Your task to perform on an android device: turn off javascript in the chrome app Image 0: 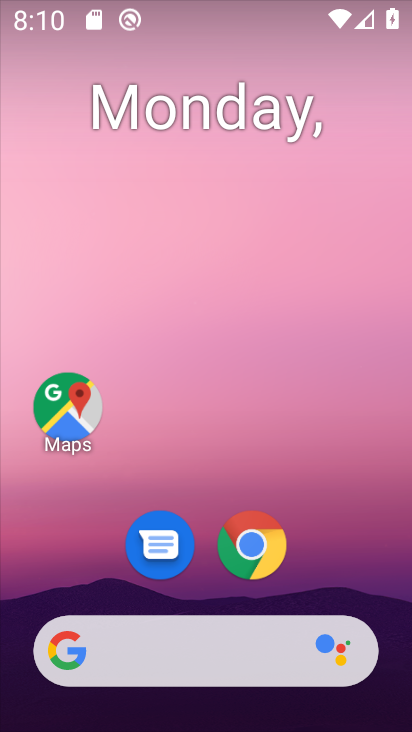
Step 0: drag from (287, 691) to (183, 169)
Your task to perform on an android device: turn off javascript in the chrome app Image 1: 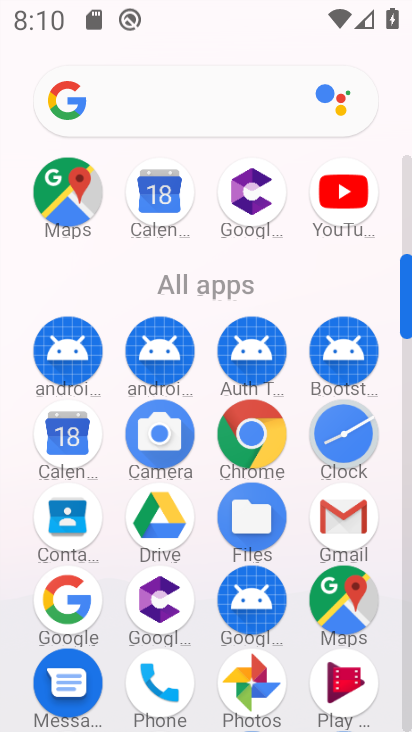
Step 1: click (228, 447)
Your task to perform on an android device: turn off javascript in the chrome app Image 2: 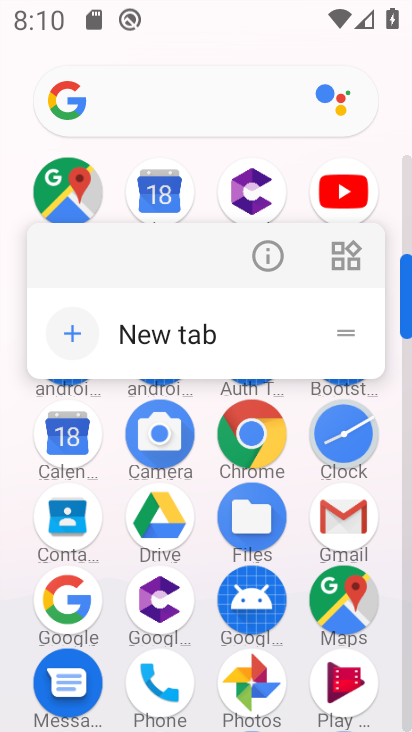
Step 2: click (246, 437)
Your task to perform on an android device: turn off javascript in the chrome app Image 3: 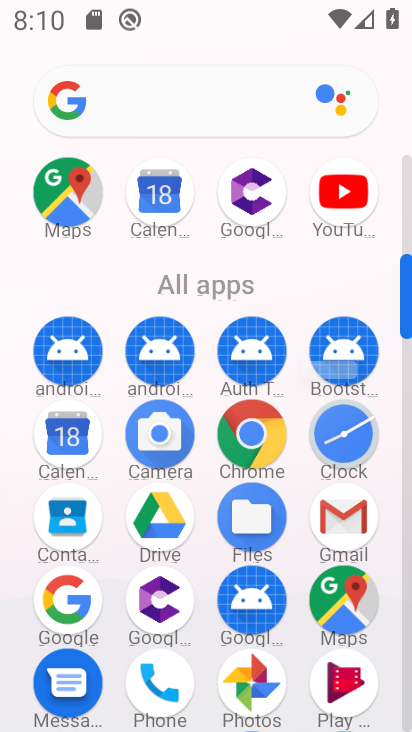
Step 3: click (246, 437)
Your task to perform on an android device: turn off javascript in the chrome app Image 4: 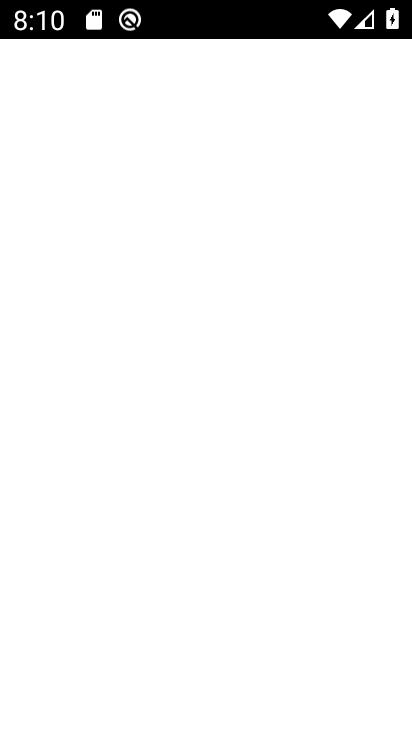
Step 4: click (248, 436)
Your task to perform on an android device: turn off javascript in the chrome app Image 5: 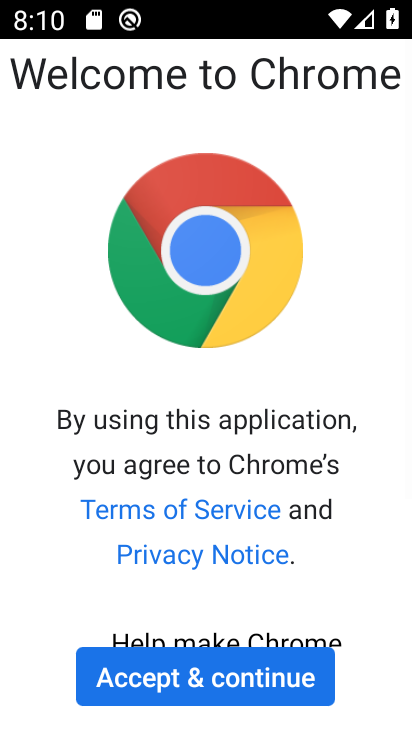
Step 5: click (196, 678)
Your task to perform on an android device: turn off javascript in the chrome app Image 6: 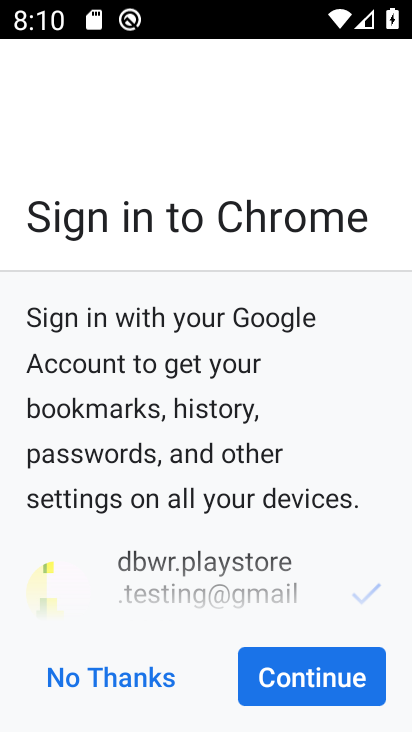
Step 6: click (323, 672)
Your task to perform on an android device: turn off javascript in the chrome app Image 7: 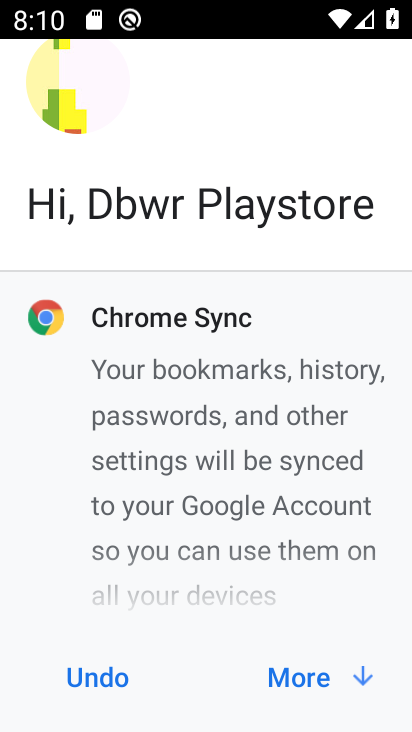
Step 7: click (287, 672)
Your task to perform on an android device: turn off javascript in the chrome app Image 8: 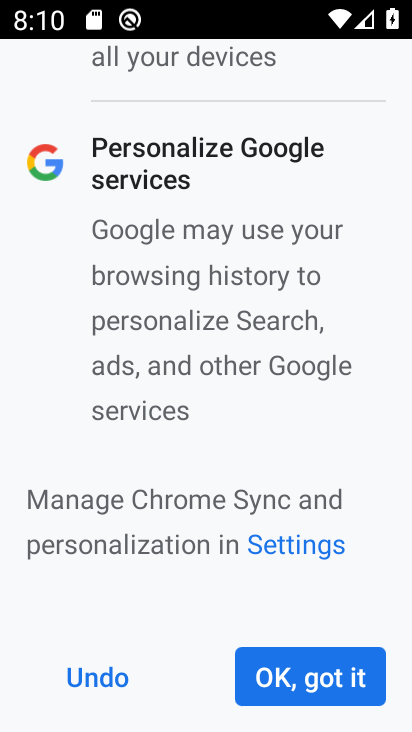
Step 8: click (287, 672)
Your task to perform on an android device: turn off javascript in the chrome app Image 9: 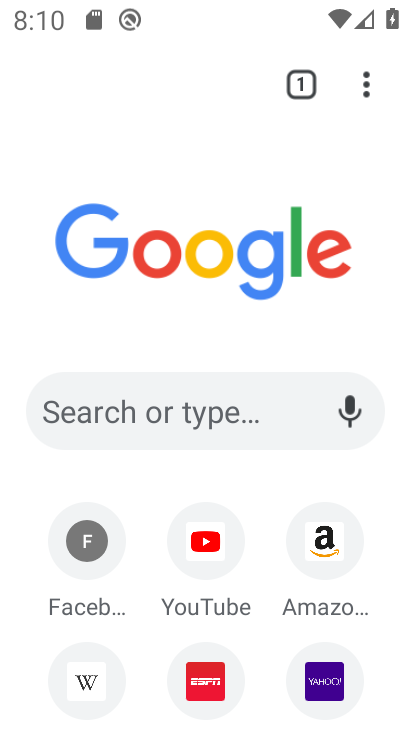
Step 9: click (360, 76)
Your task to perform on an android device: turn off javascript in the chrome app Image 10: 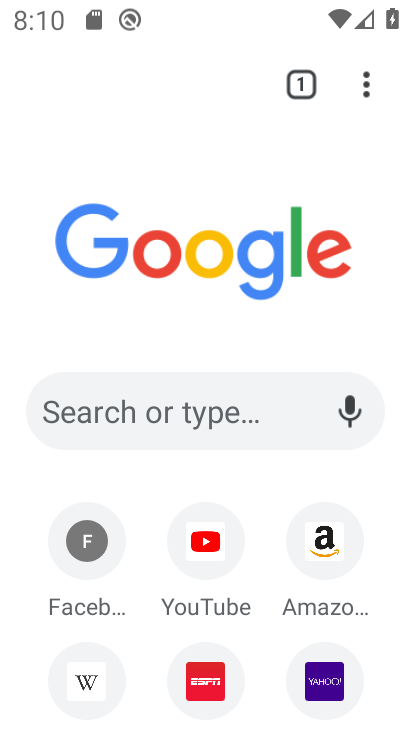
Step 10: click (360, 76)
Your task to perform on an android device: turn off javascript in the chrome app Image 11: 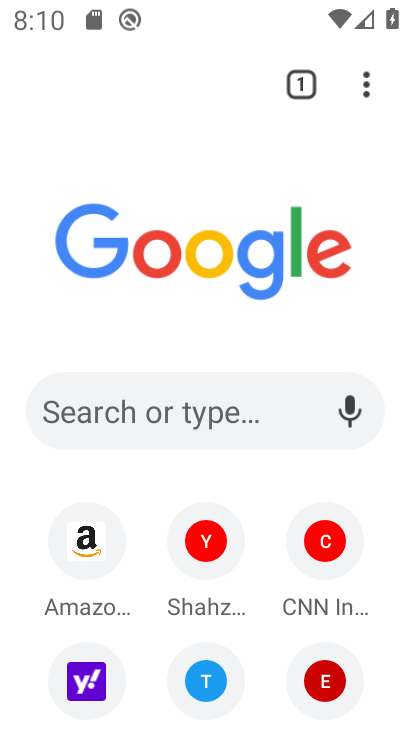
Step 11: click (365, 80)
Your task to perform on an android device: turn off javascript in the chrome app Image 12: 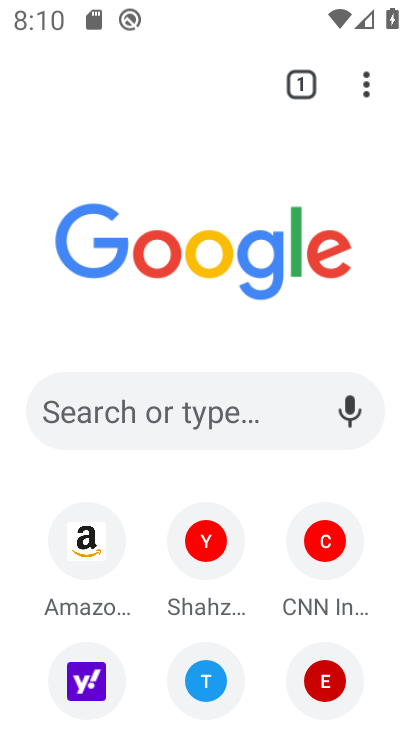
Step 12: click (364, 81)
Your task to perform on an android device: turn off javascript in the chrome app Image 13: 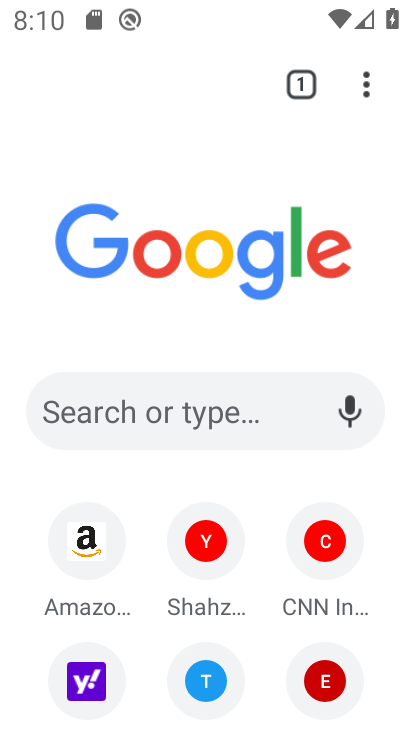
Step 13: click (364, 81)
Your task to perform on an android device: turn off javascript in the chrome app Image 14: 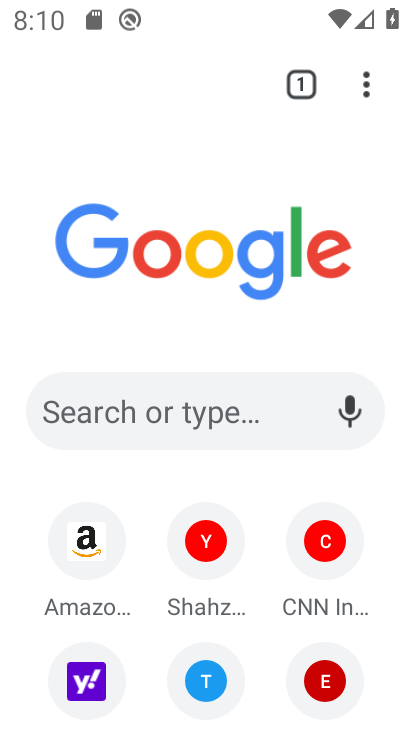
Step 14: click (364, 81)
Your task to perform on an android device: turn off javascript in the chrome app Image 15: 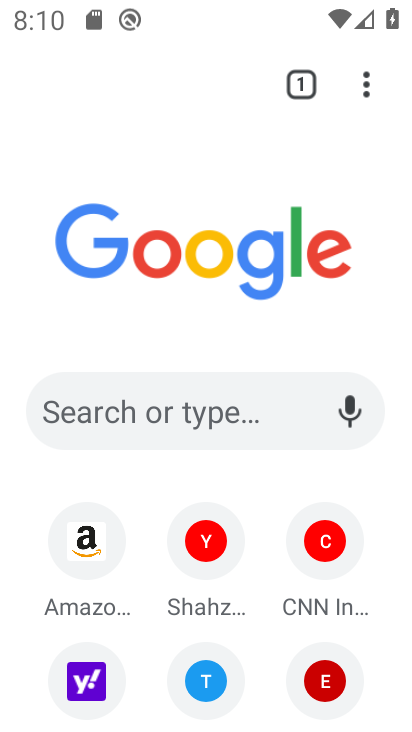
Step 15: click (364, 81)
Your task to perform on an android device: turn off javascript in the chrome app Image 16: 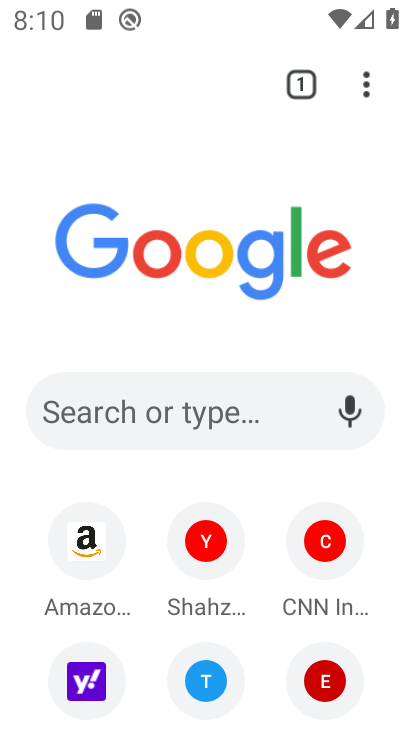
Step 16: click (364, 81)
Your task to perform on an android device: turn off javascript in the chrome app Image 17: 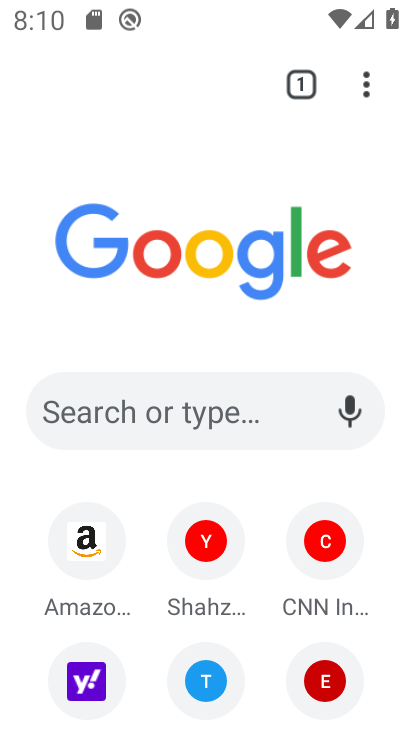
Step 17: click (364, 81)
Your task to perform on an android device: turn off javascript in the chrome app Image 18: 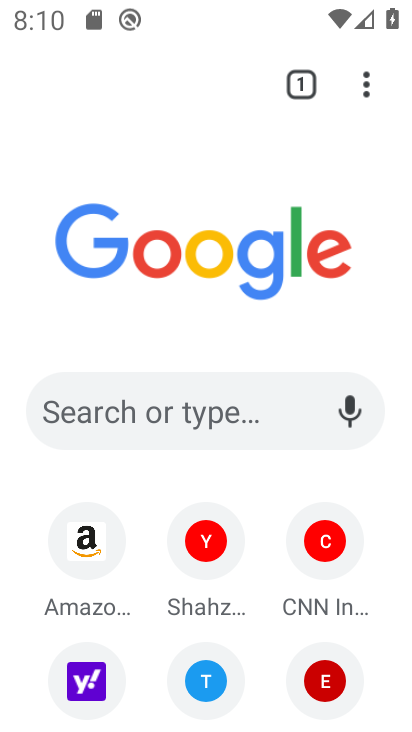
Step 18: click (364, 81)
Your task to perform on an android device: turn off javascript in the chrome app Image 19: 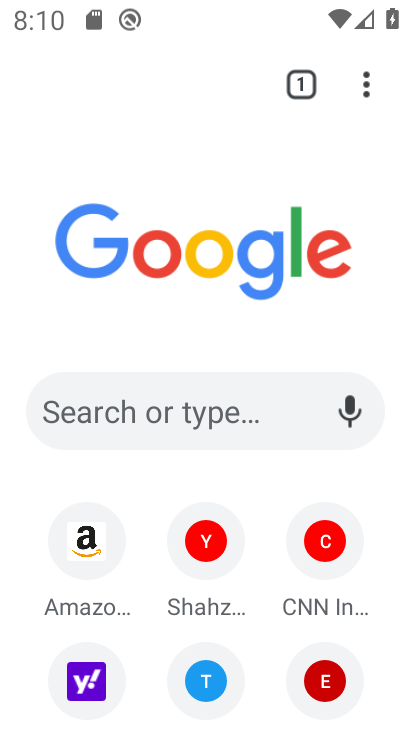
Step 19: click (364, 81)
Your task to perform on an android device: turn off javascript in the chrome app Image 20: 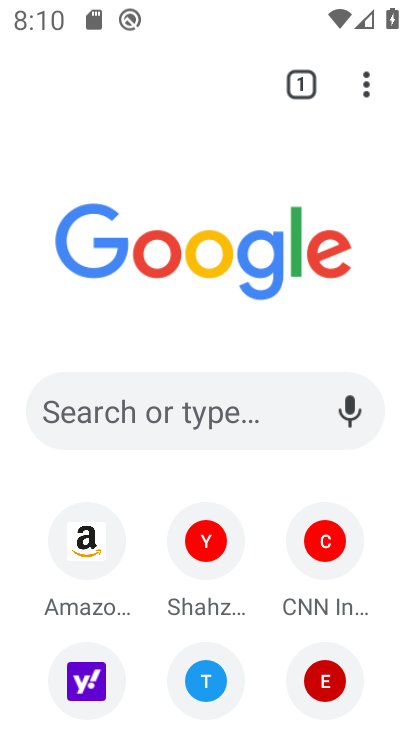
Step 20: click (364, 81)
Your task to perform on an android device: turn off javascript in the chrome app Image 21: 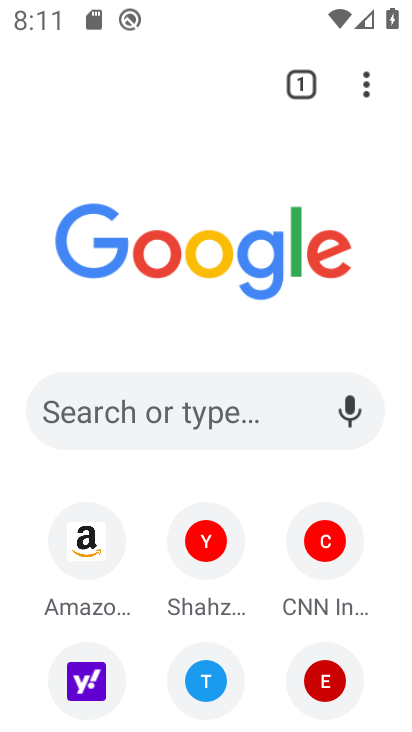
Step 21: click (364, 81)
Your task to perform on an android device: turn off javascript in the chrome app Image 22: 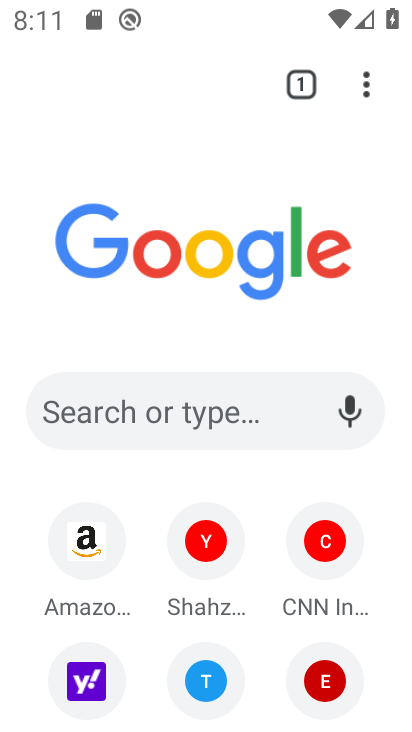
Step 22: drag from (364, 81) to (163, 650)
Your task to perform on an android device: turn off javascript in the chrome app Image 23: 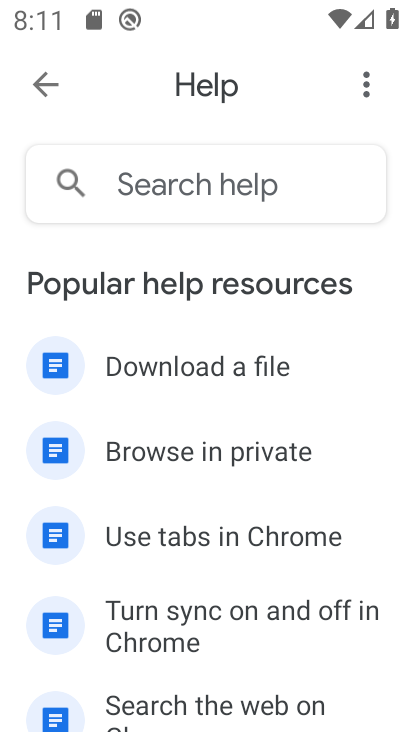
Step 23: click (34, 76)
Your task to perform on an android device: turn off javascript in the chrome app Image 24: 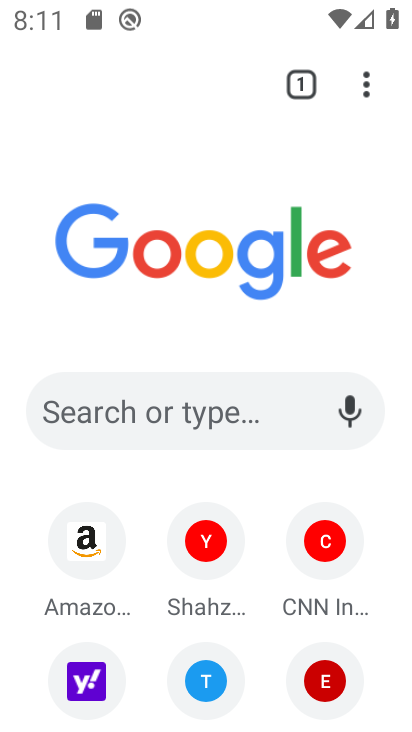
Step 24: drag from (372, 295) to (365, 81)
Your task to perform on an android device: turn off javascript in the chrome app Image 25: 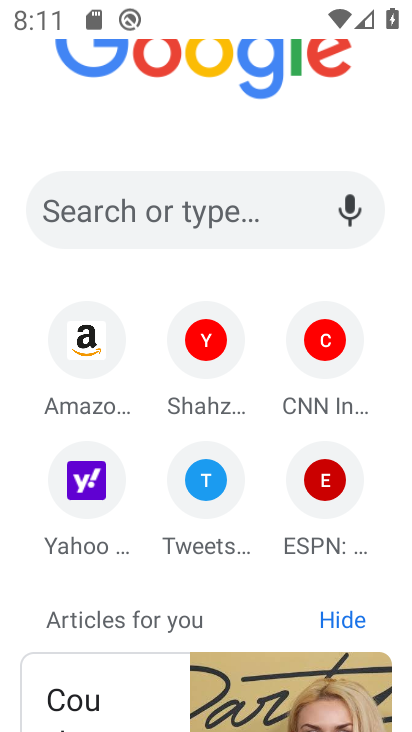
Step 25: drag from (170, 240) to (406, 229)
Your task to perform on an android device: turn off javascript in the chrome app Image 26: 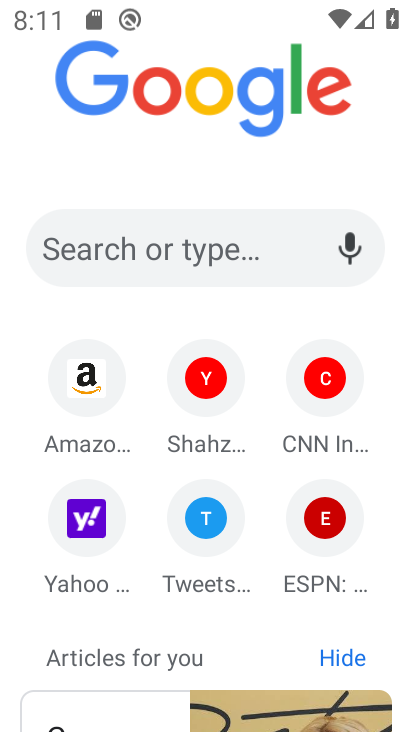
Step 26: click (158, 585)
Your task to perform on an android device: turn off javascript in the chrome app Image 27: 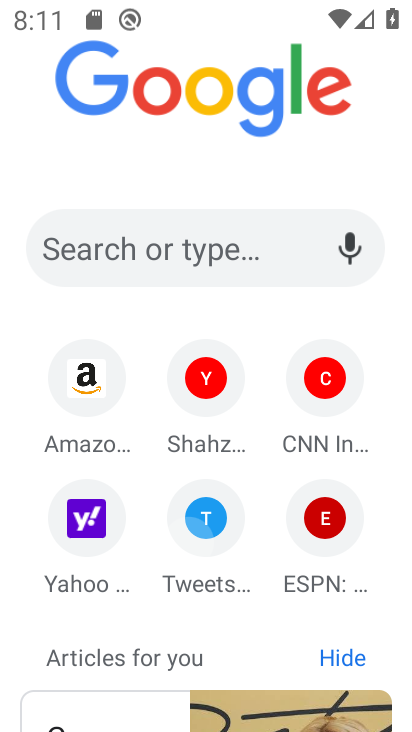
Step 27: drag from (230, 265) to (240, 613)
Your task to perform on an android device: turn off javascript in the chrome app Image 28: 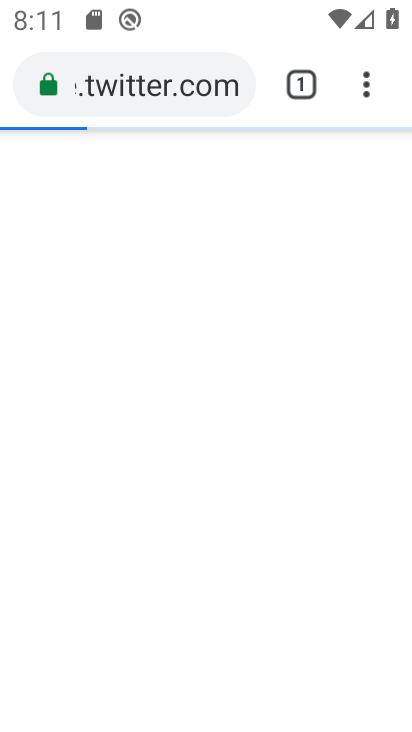
Step 28: drag from (278, 255) to (283, 517)
Your task to perform on an android device: turn off javascript in the chrome app Image 29: 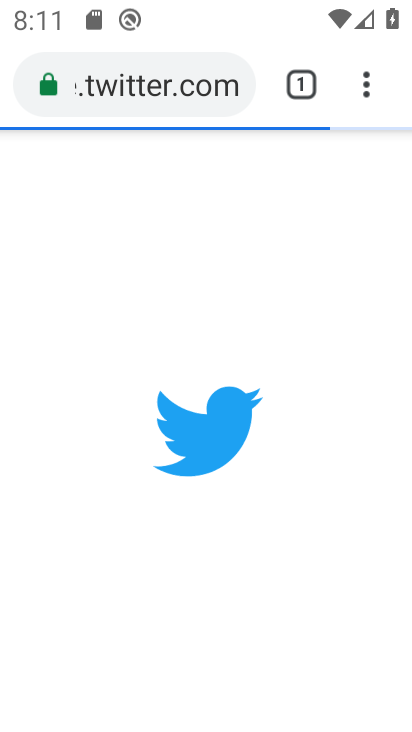
Step 29: click (362, 86)
Your task to perform on an android device: turn off javascript in the chrome app Image 30: 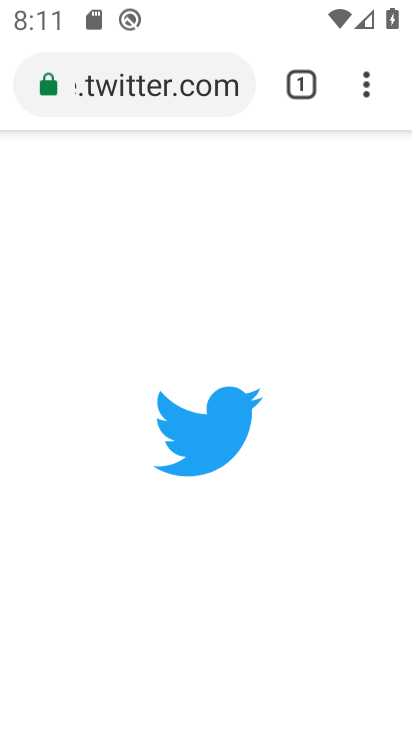
Step 30: click (365, 80)
Your task to perform on an android device: turn off javascript in the chrome app Image 31: 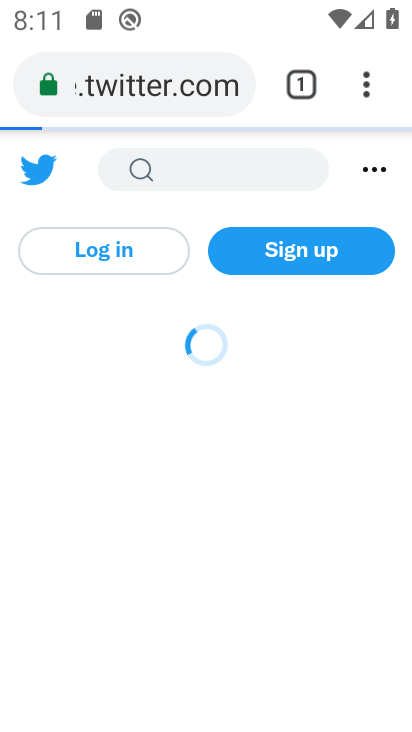
Step 31: click (365, 80)
Your task to perform on an android device: turn off javascript in the chrome app Image 32: 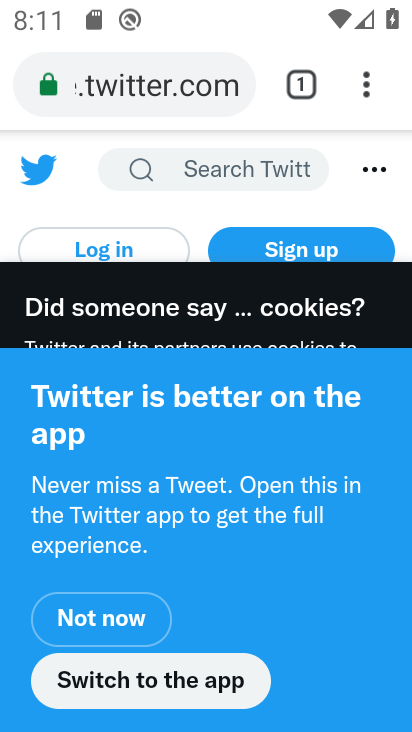
Step 32: press back button
Your task to perform on an android device: turn off javascript in the chrome app Image 33: 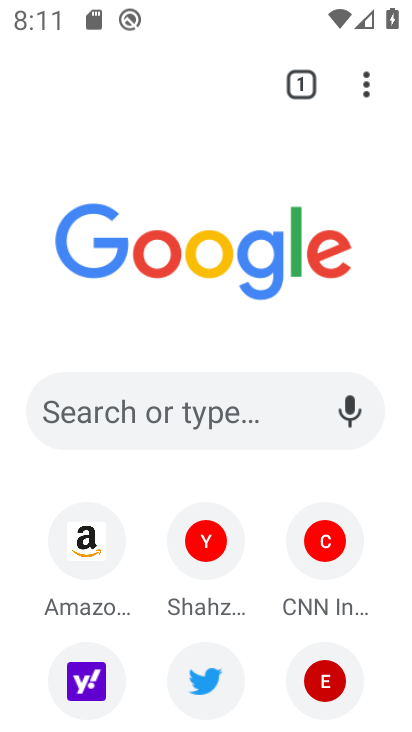
Step 33: click (357, 80)
Your task to perform on an android device: turn off javascript in the chrome app Image 34: 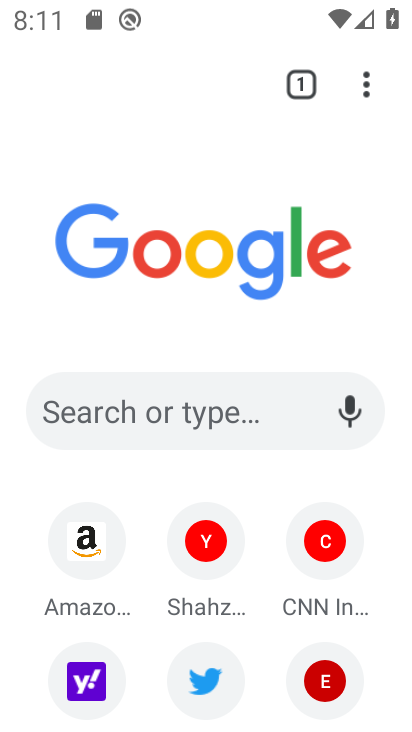
Step 34: click (357, 80)
Your task to perform on an android device: turn off javascript in the chrome app Image 35: 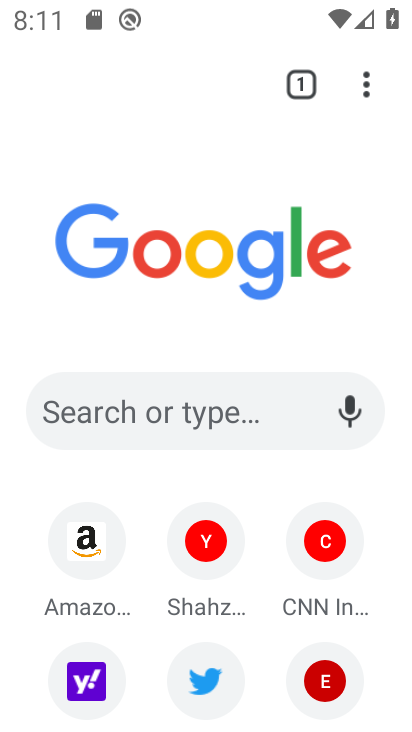
Step 35: click (363, 81)
Your task to perform on an android device: turn off javascript in the chrome app Image 36: 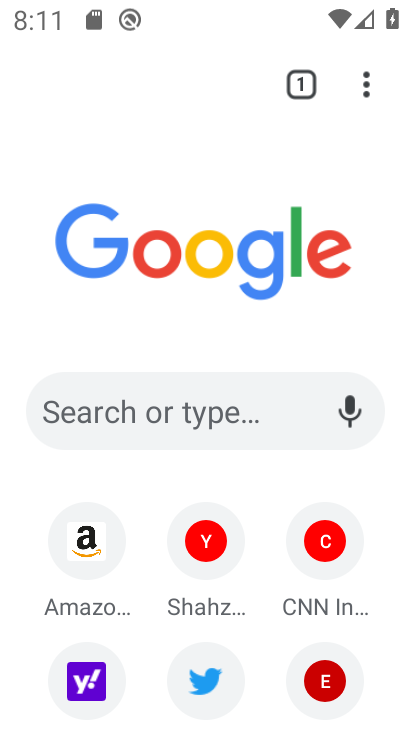
Step 36: drag from (358, 92) to (383, 59)
Your task to perform on an android device: turn off javascript in the chrome app Image 37: 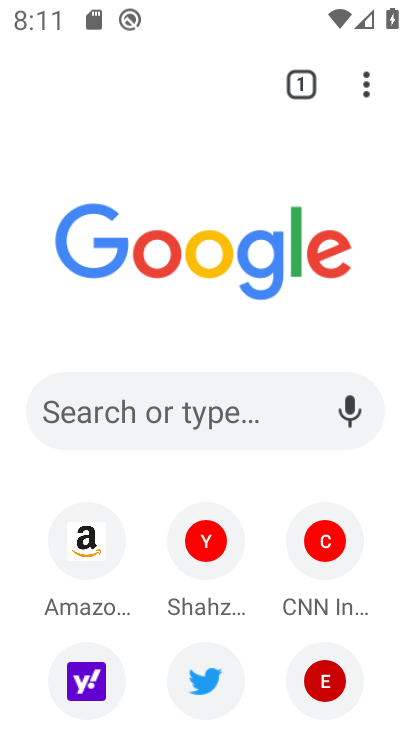
Step 37: click (366, 88)
Your task to perform on an android device: turn off javascript in the chrome app Image 38: 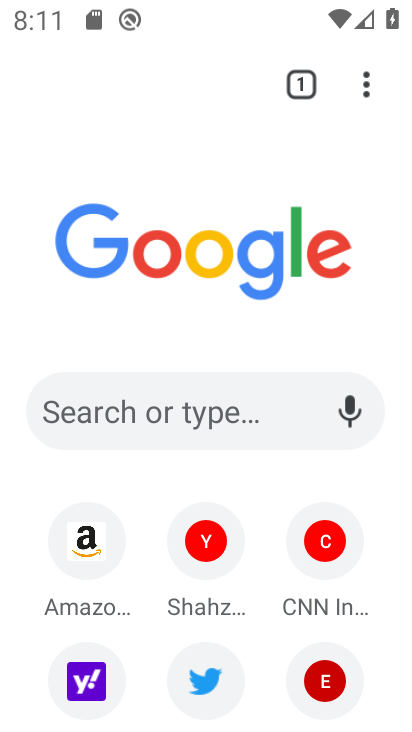
Step 38: click (365, 75)
Your task to perform on an android device: turn off javascript in the chrome app Image 39: 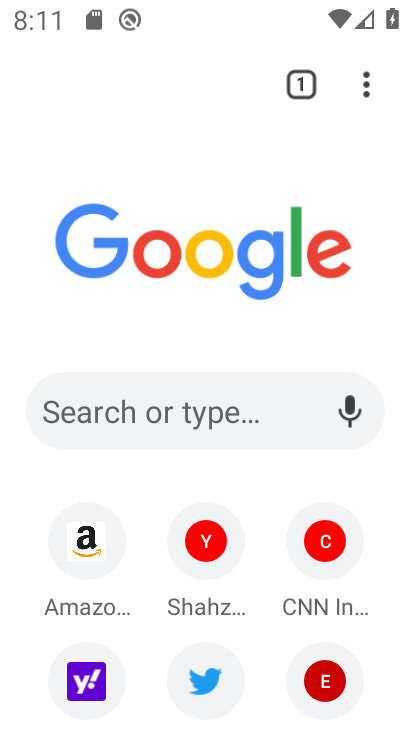
Step 39: click (367, 81)
Your task to perform on an android device: turn off javascript in the chrome app Image 40: 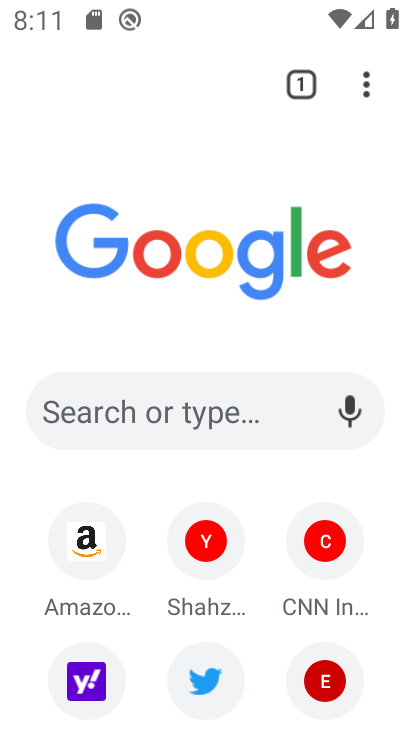
Step 40: click (368, 89)
Your task to perform on an android device: turn off javascript in the chrome app Image 41: 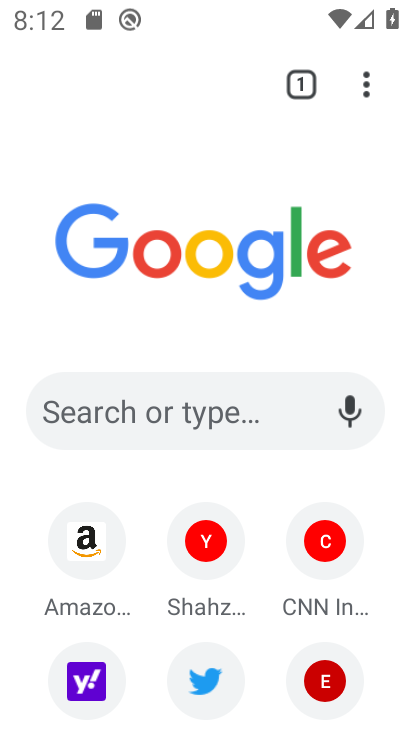
Step 41: click (366, 78)
Your task to perform on an android device: turn off javascript in the chrome app Image 42: 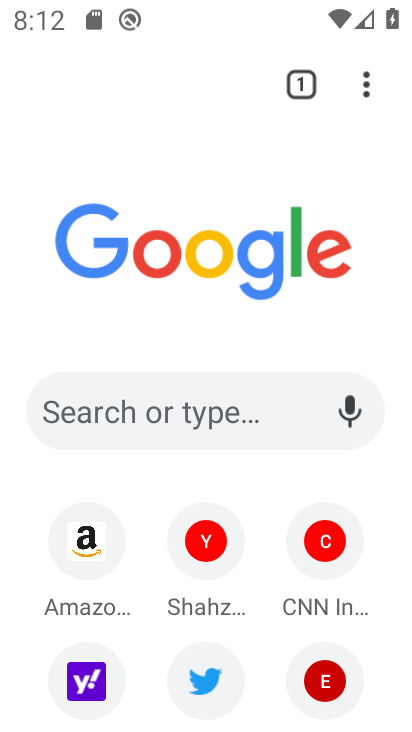
Step 42: click (364, 76)
Your task to perform on an android device: turn off javascript in the chrome app Image 43: 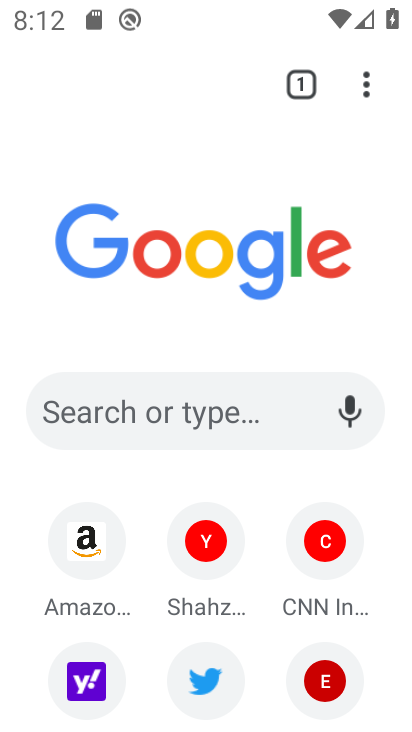
Step 43: click (364, 90)
Your task to perform on an android device: turn off javascript in the chrome app Image 44: 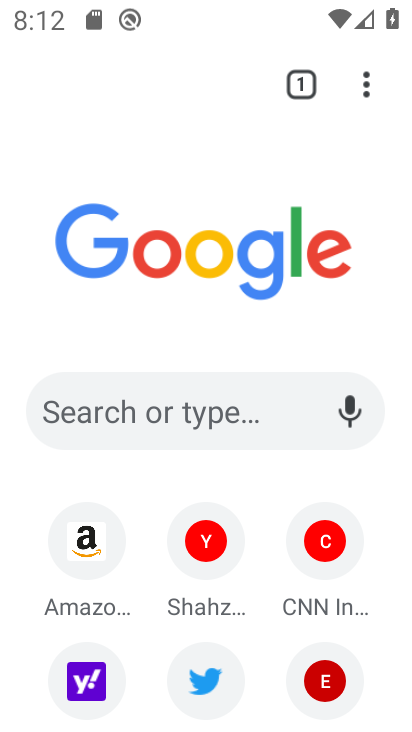
Step 44: click (362, 73)
Your task to perform on an android device: turn off javascript in the chrome app Image 45: 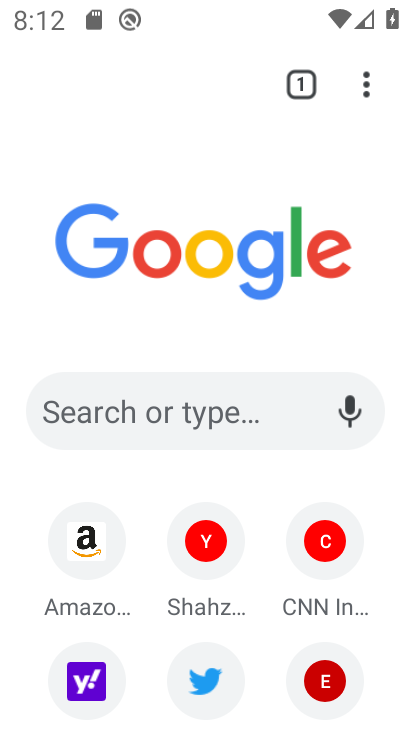
Step 45: click (365, 85)
Your task to perform on an android device: turn off javascript in the chrome app Image 46: 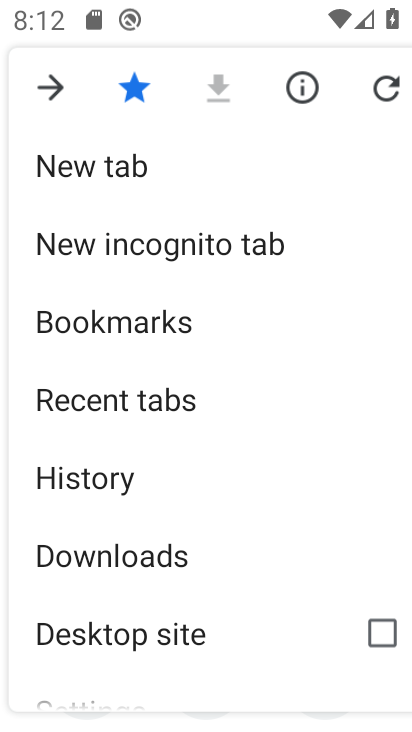
Step 46: drag from (210, 559) to (203, 218)
Your task to perform on an android device: turn off javascript in the chrome app Image 47: 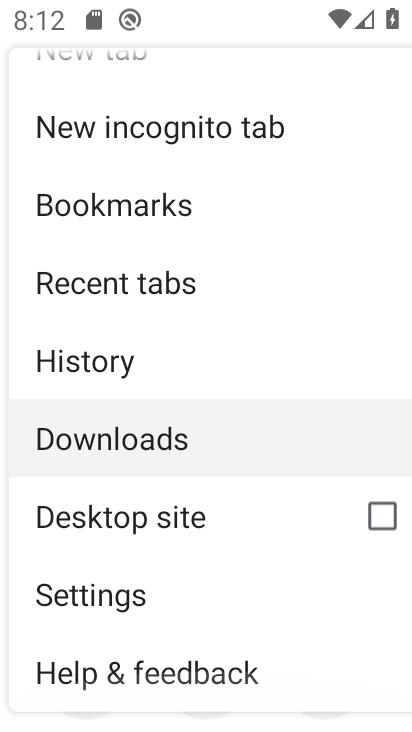
Step 47: drag from (254, 578) to (276, 213)
Your task to perform on an android device: turn off javascript in the chrome app Image 48: 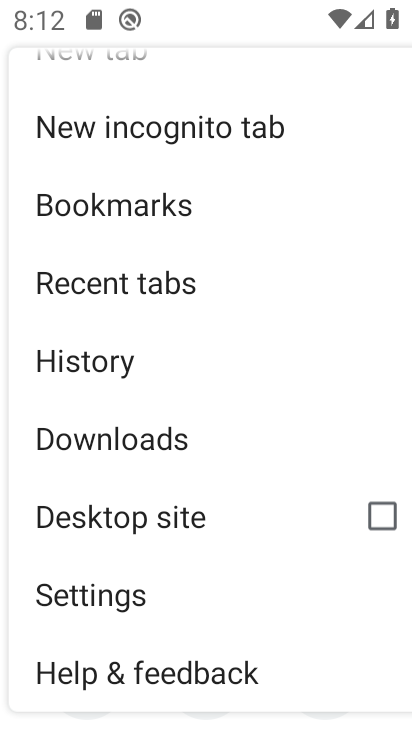
Step 48: click (104, 589)
Your task to perform on an android device: turn off javascript in the chrome app Image 49: 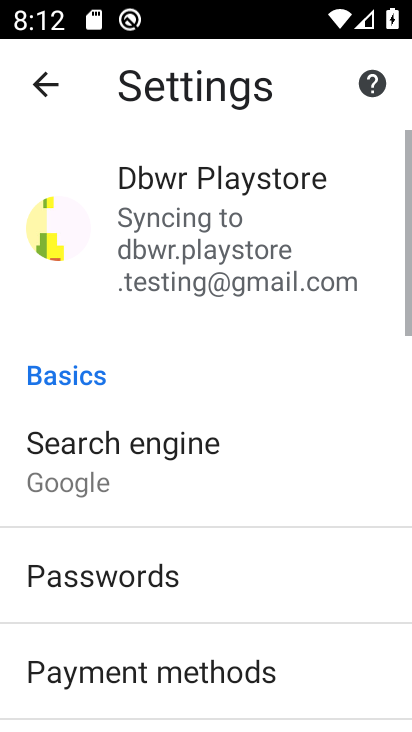
Step 49: drag from (243, 630) to (223, 220)
Your task to perform on an android device: turn off javascript in the chrome app Image 50: 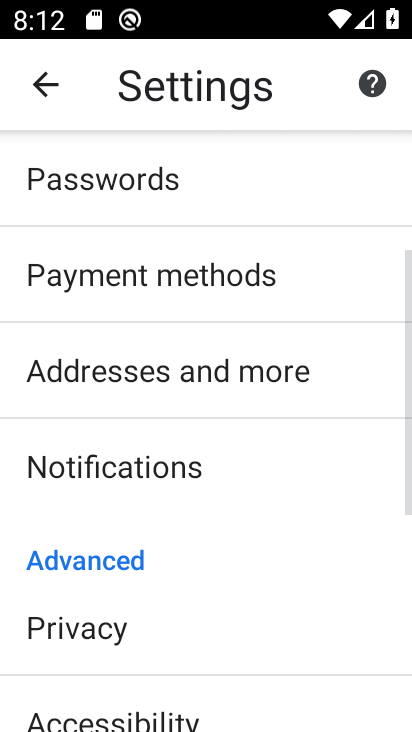
Step 50: drag from (185, 490) to (188, 10)
Your task to perform on an android device: turn off javascript in the chrome app Image 51: 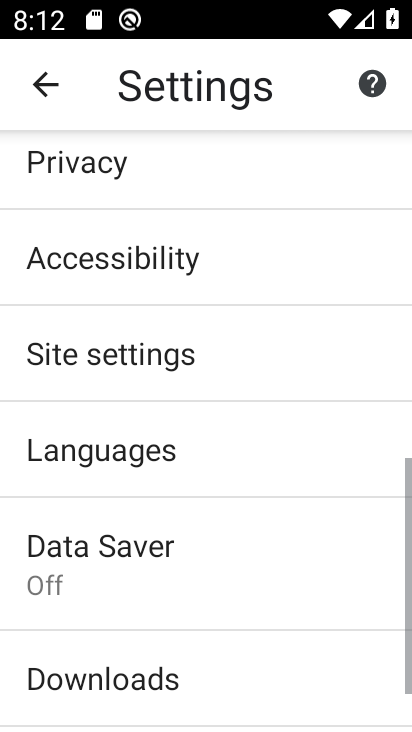
Step 51: drag from (135, 538) to (133, 183)
Your task to perform on an android device: turn off javascript in the chrome app Image 52: 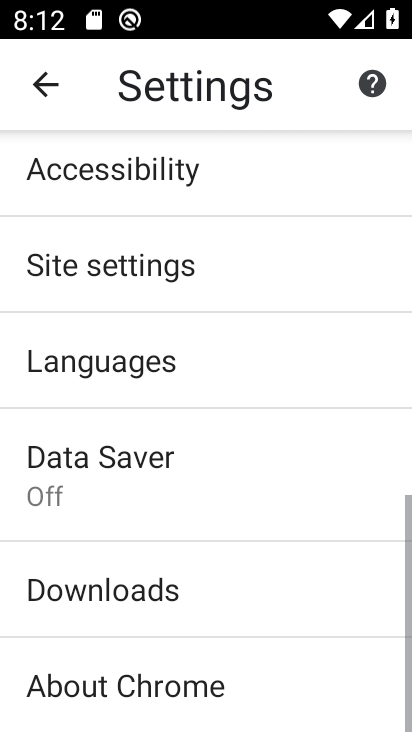
Step 52: click (97, 264)
Your task to perform on an android device: turn off javascript in the chrome app Image 53: 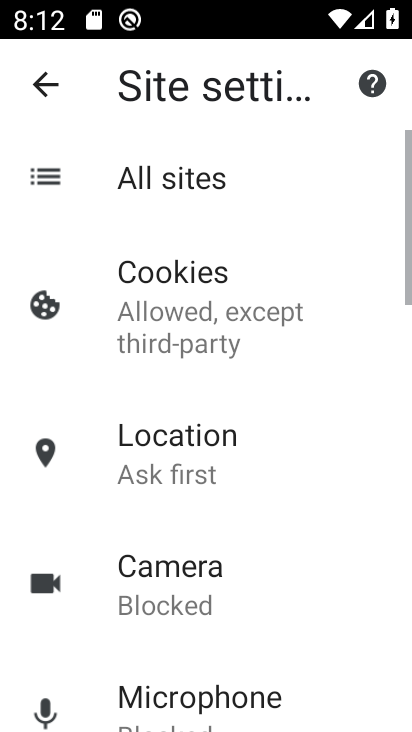
Step 53: drag from (214, 549) to (215, 177)
Your task to perform on an android device: turn off javascript in the chrome app Image 54: 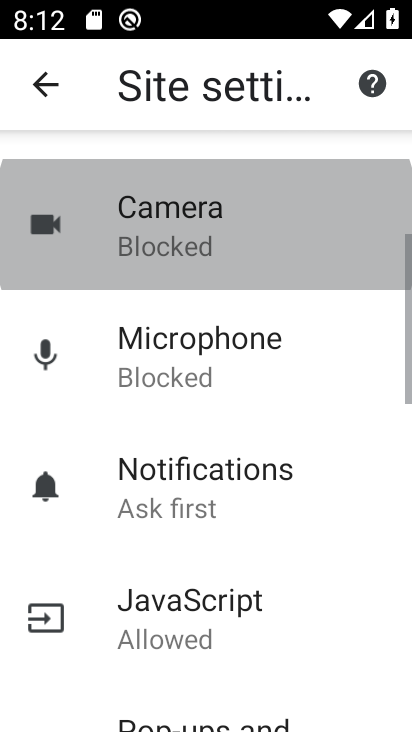
Step 54: drag from (201, 515) to (177, 211)
Your task to perform on an android device: turn off javascript in the chrome app Image 55: 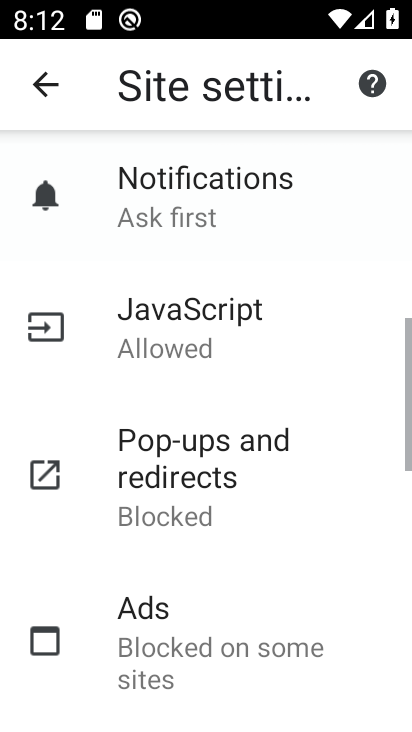
Step 55: drag from (242, 503) to (275, 96)
Your task to perform on an android device: turn off javascript in the chrome app Image 56: 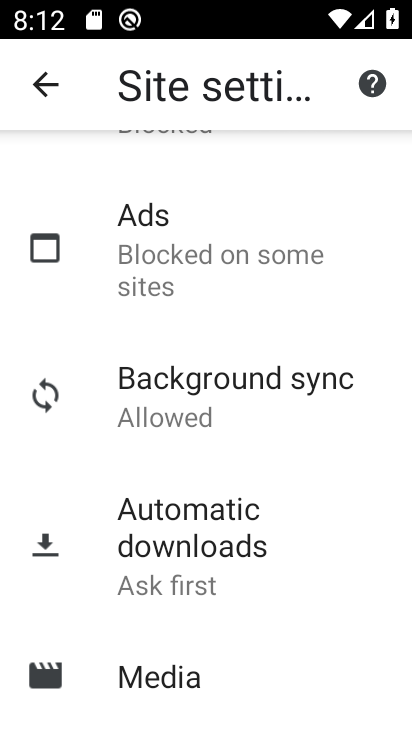
Step 56: drag from (230, 196) to (230, 551)
Your task to perform on an android device: turn off javascript in the chrome app Image 57: 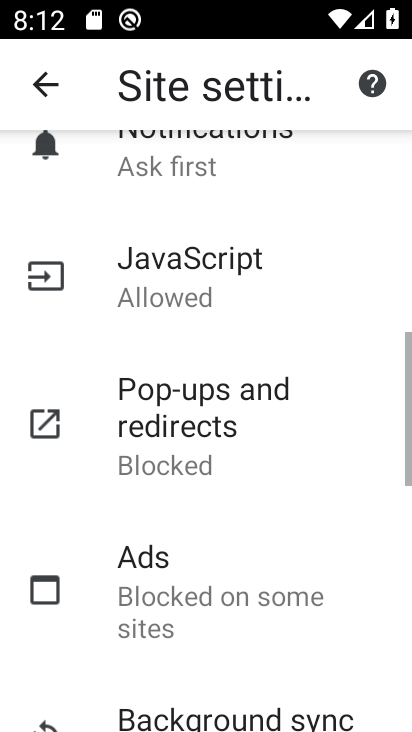
Step 57: click (174, 278)
Your task to perform on an android device: turn off javascript in the chrome app Image 58: 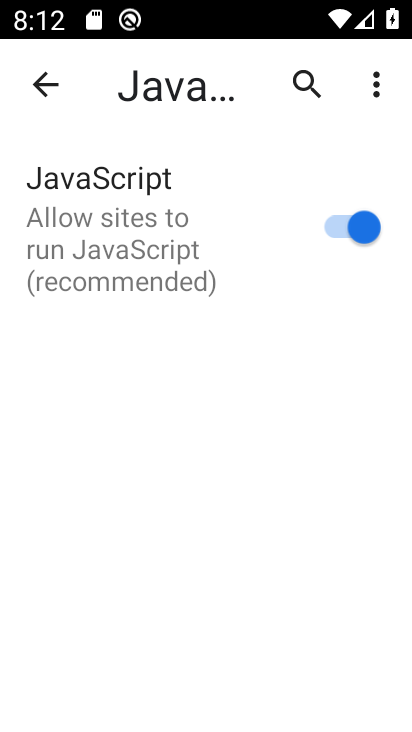
Step 58: click (365, 228)
Your task to perform on an android device: turn off javascript in the chrome app Image 59: 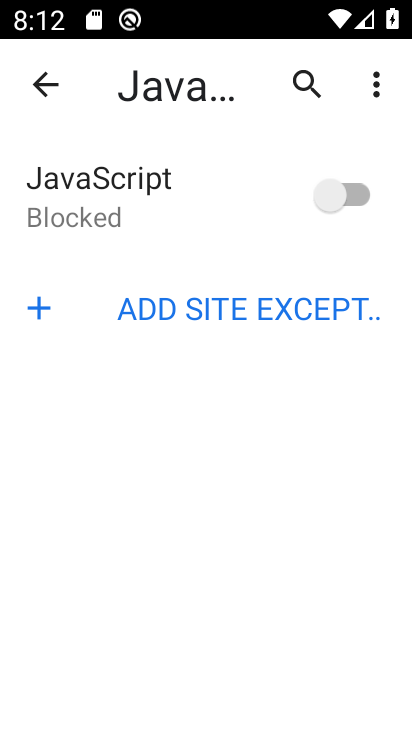
Step 59: task complete